Your task to perform on an android device: remove spam from my inbox in the gmail app Image 0: 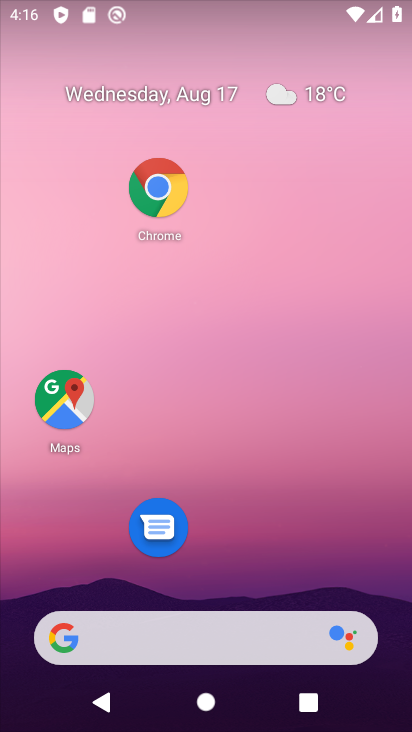
Step 0: drag from (228, 594) to (311, 4)
Your task to perform on an android device: remove spam from my inbox in the gmail app Image 1: 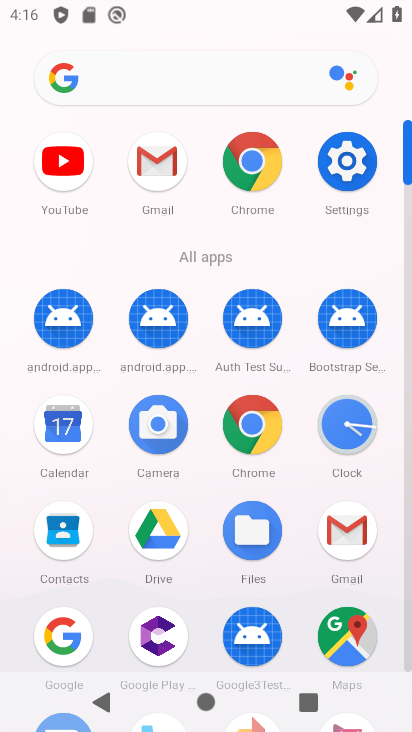
Step 1: click (162, 171)
Your task to perform on an android device: remove spam from my inbox in the gmail app Image 2: 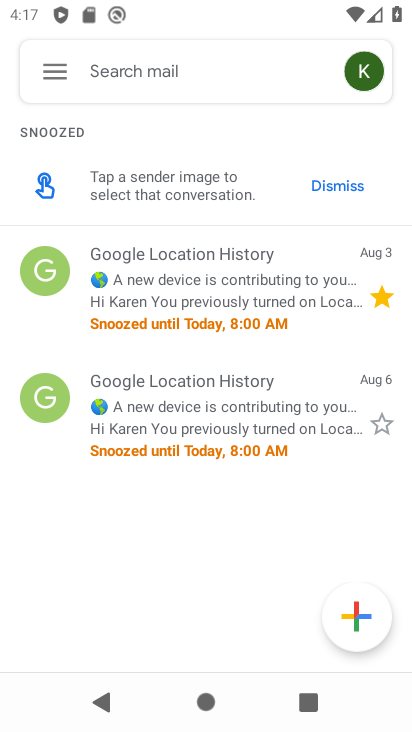
Step 2: click (43, 79)
Your task to perform on an android device: remove spam from my inbox in the gmail app Image 3: 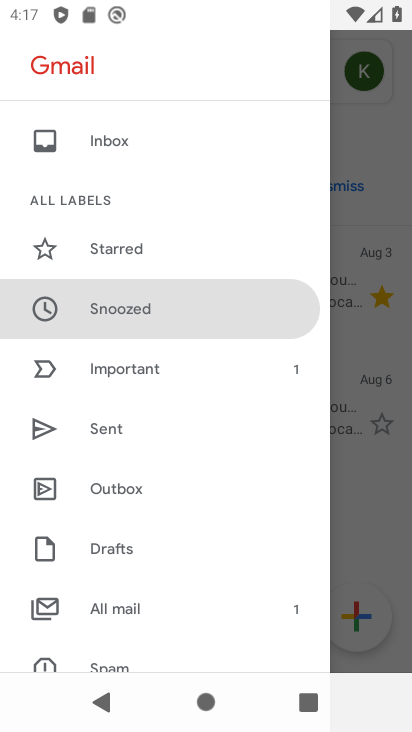
Step 3: click (123, 663)
Your task to perform on an android device: remove spam from my inbox in the gmail app Image 4: 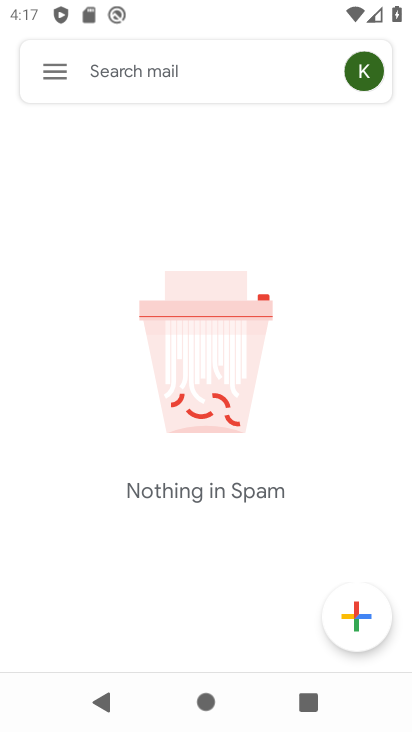
Step 4: task complete